Your task to perform on an android device: open the mobile data screen to see how much data has been used Image 0: 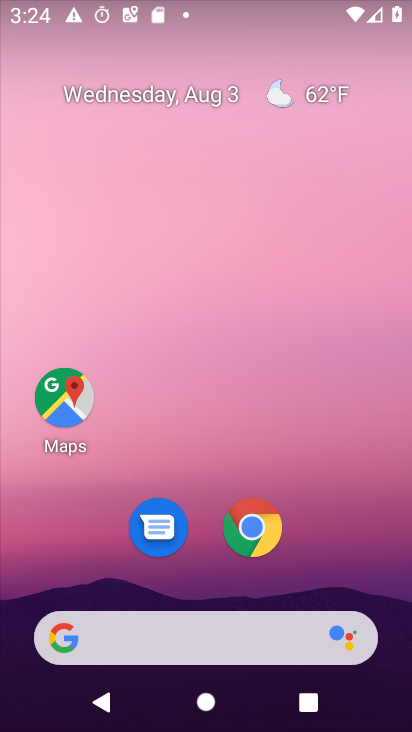
Step 0: drag from (359, 544) to (344, 124)
Your task to perform on an android device: open the mobile data screen to see how much data has been used Image 1: 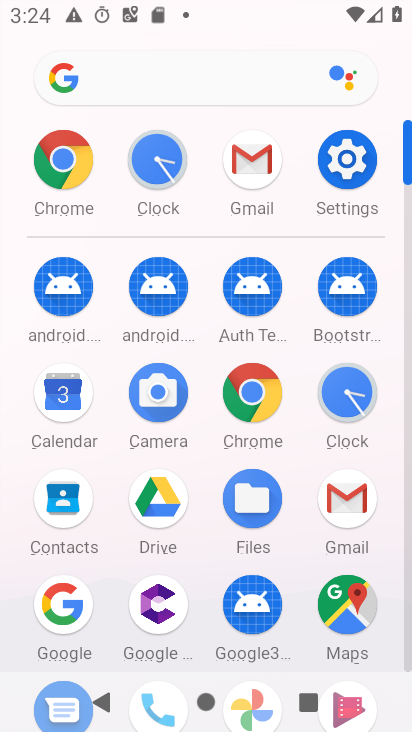
Step 1: click (344, 148)
Your task to perform on an android device: open the mobile data screen to see how much data has been used Image 2: 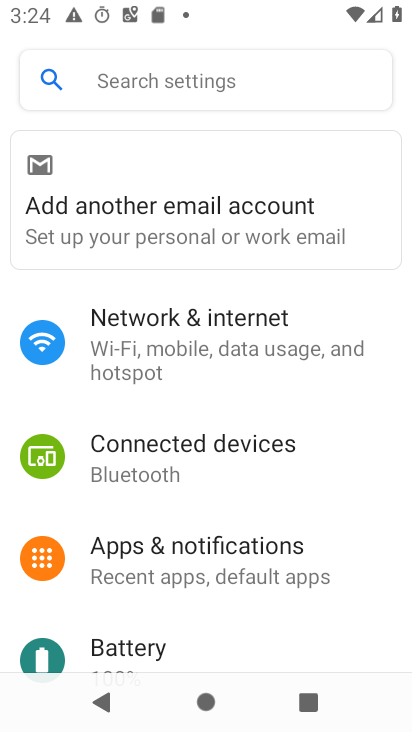
Step 2: click (242, 351)
Your task to perform on an android device: open the mobile data screen to see how much data has been used Image 3: 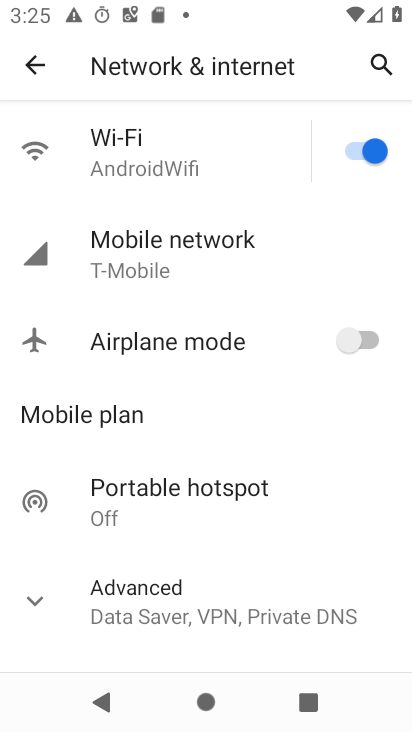
Step 3: click (192, 260)
Your task to perform on an android device: open the mobile data screen to see how much data has been used Image 4: 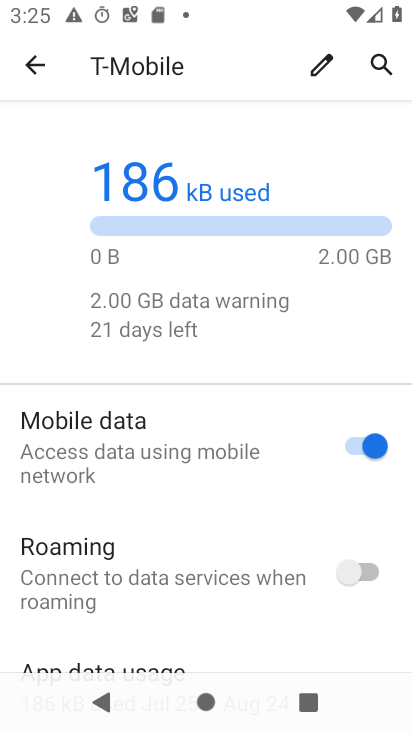
Step 4: task complete